Your task to perform on an android device: turn on the 12-hour format for clock Image 0: 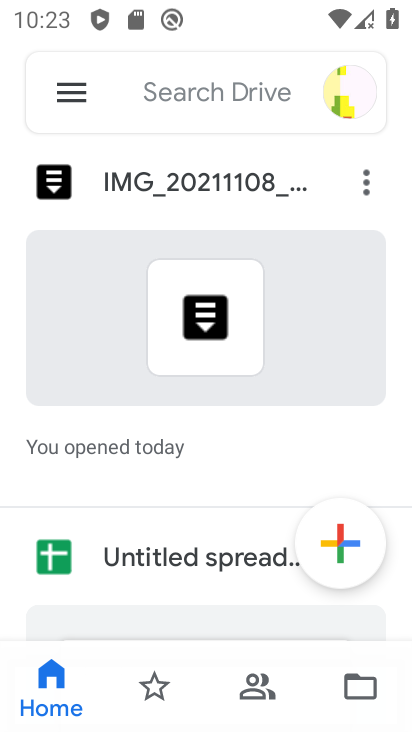
Step 0: press home button
Your task to perform on an android device: turn on the 12-hour format for clock Image 1: 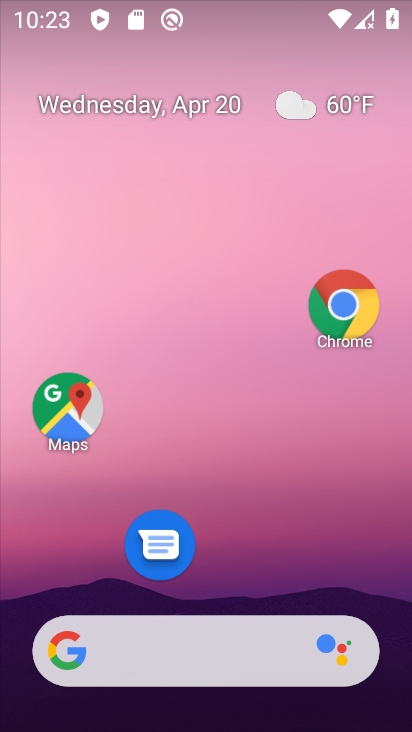
Step 1: drag from (259, 638) to (246, 297)
Your task to perform on an android device: turn on the 12-hour format for clock Image 2: 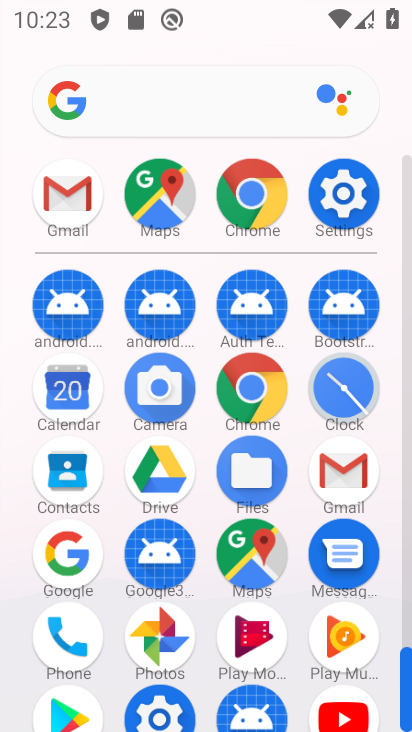
Step 2: click (356, 416)
Your task to perform on an android device: turn on the 12-hour format for clock Image 3: 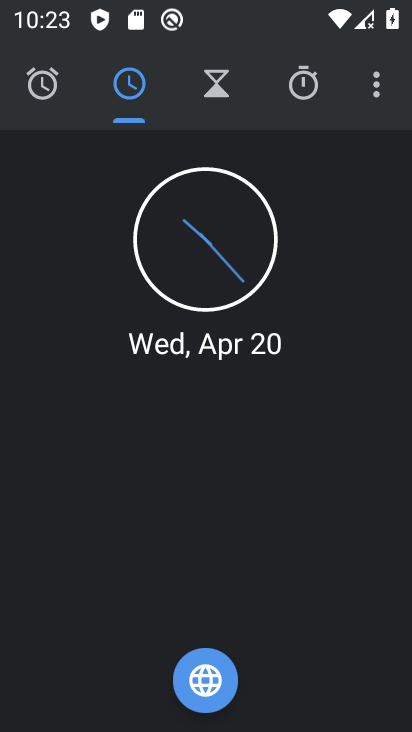
Step 3: click (386, 90)
Your task to perform on an android device: turn on the 12-hour format for clock Image 4: 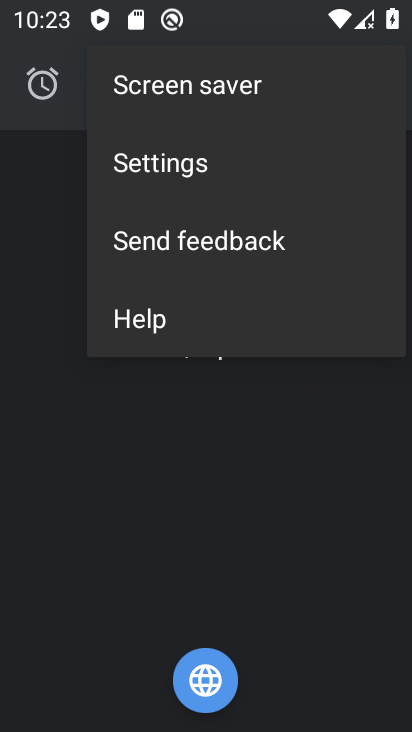
Step 4: click (178, 169)
Your task to perform on an android device: turn on the 12-hour format for clock Image 5: 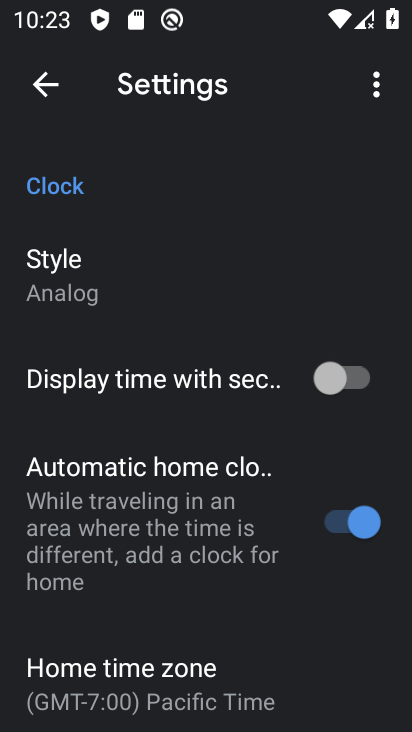
Step 5: drag from (189, 542) to (231, 252)
Your task to perform on an android device: turn on the 12-hour format for clock Image 6: 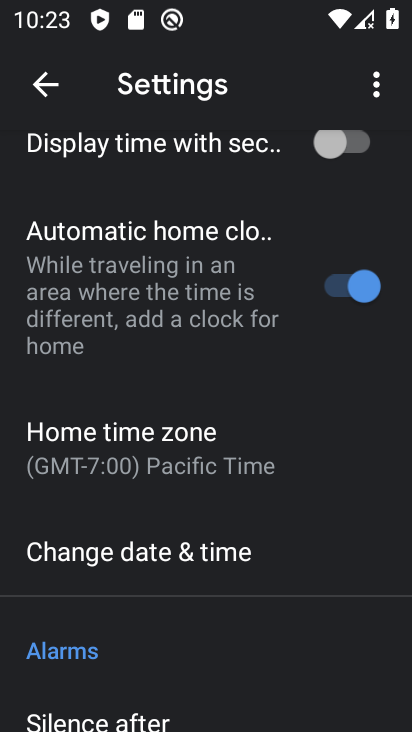
Step 6: click (184, 552)
Your task to perform on an android device: turn on the 12-hour format for clock Image 7: 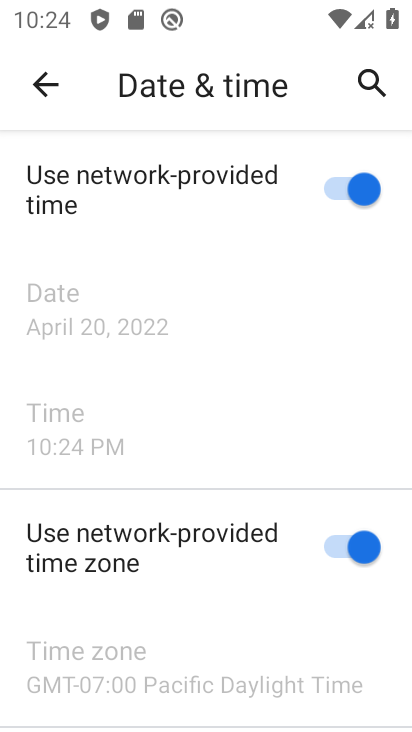
Step 7: task complete